Your task to perform on an android device: open wifi settings Image 0: 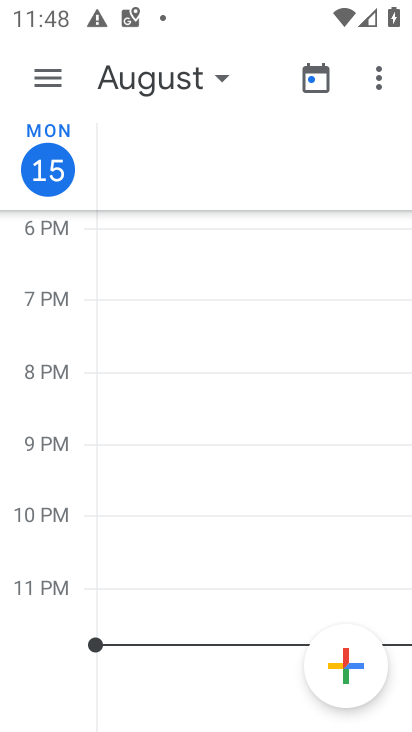
Step 0: press home button
Your task to perform on an android device: open wifi settings Image 1: 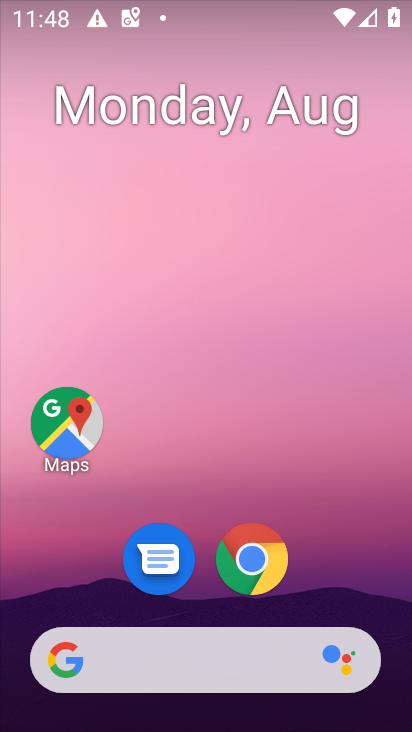
Step 1: drag from (223, 467) to (242, 15)
Your task to perform on an android device: open wifi settings Image 2: 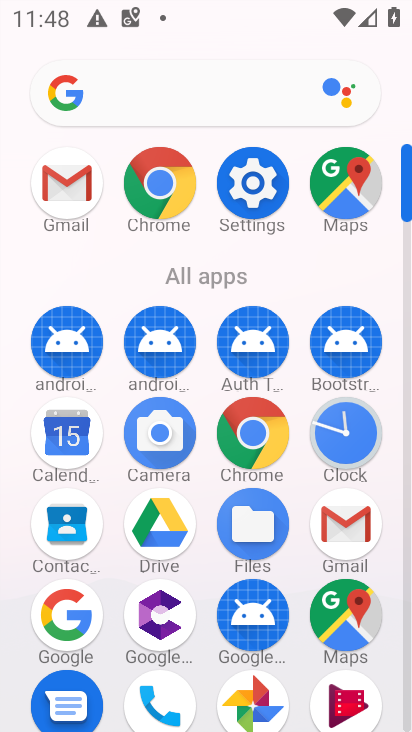
Step 2: click (253, 190)
Your task to perform on an android device: open wifi settings Image 3: 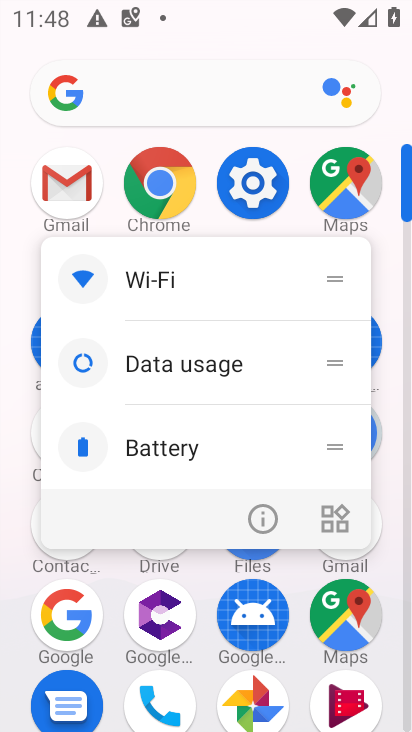
Step 3: click (254, 182)
Your task to perform on an android device: open wifi settings Image 4: 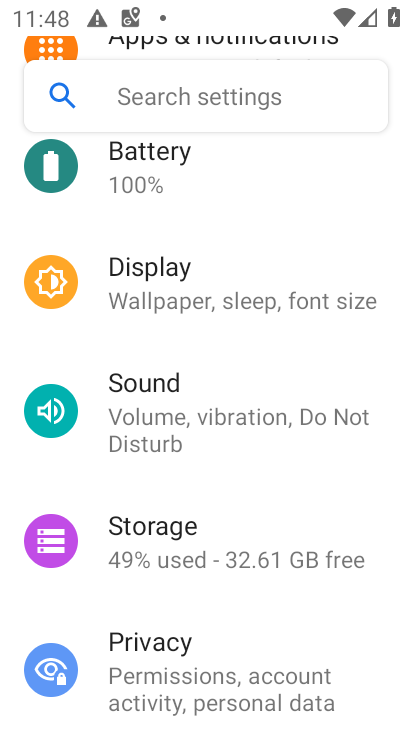
Step 4: drag from (215, 162) to (230, 522)
Your task to perform on an android device: open wifi settings Image 5: 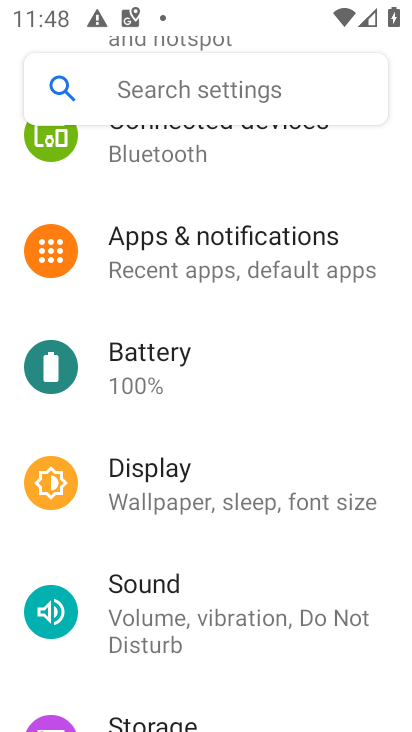
Step 5: drag from (231, 224) to (240, 717)
Your task to perform on an android device: open wifi settings Image 6: 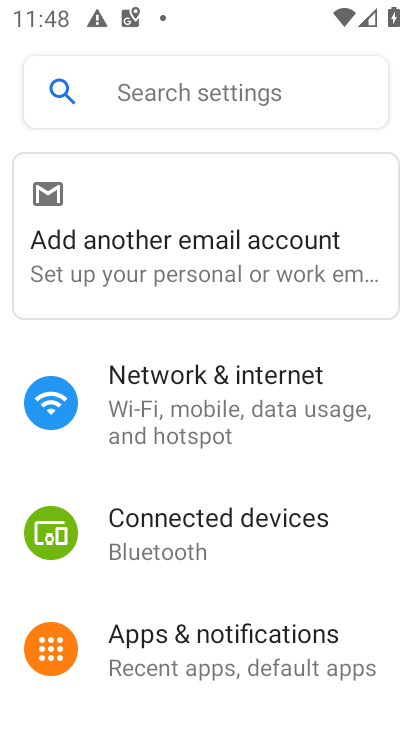
Step 6: click (184, 416)
Your task to perform on an android device: open wifi settings Image 7: 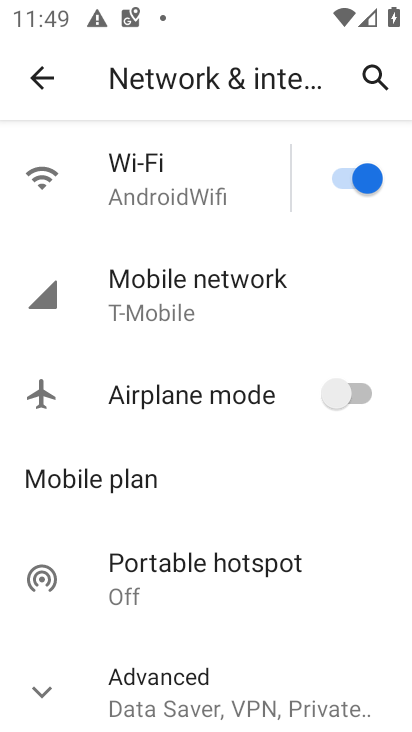
Step 7: click (134, 182)
Your task to perform on an android device: open wifi settings Image 8: 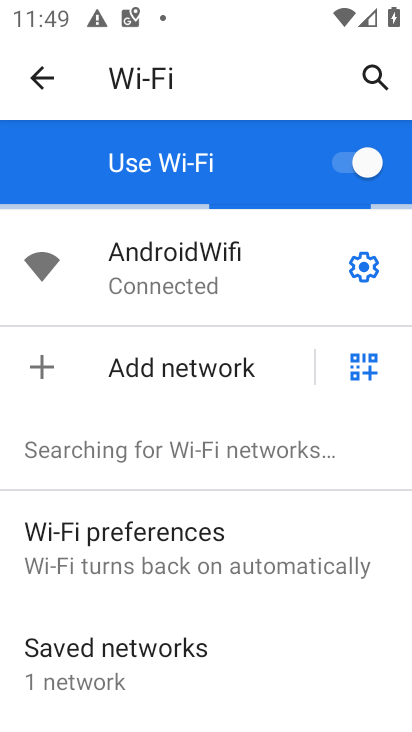
Step 8: task complete